Your task to perform on an android device: check data usage Image 0: 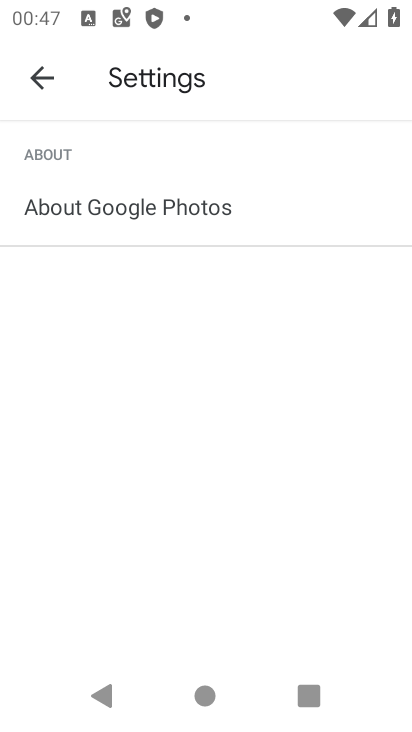
Step 0: press home button
Your task to perform on an android device: check data usage Image 1: 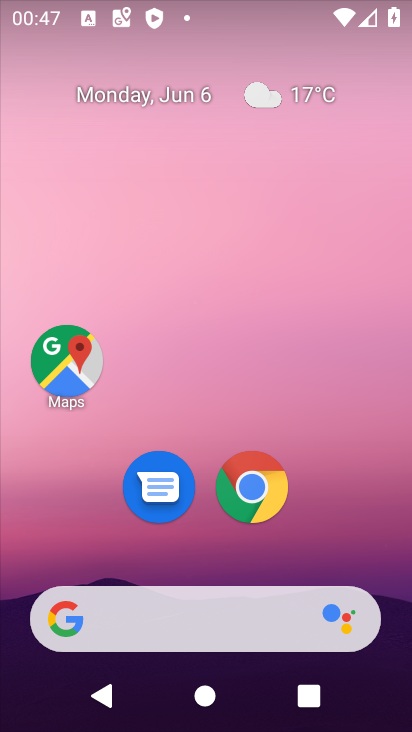
Step 1: drag from (401, 625) to (330, 5)
Your task to perform on an android device: check data usage Image 2: 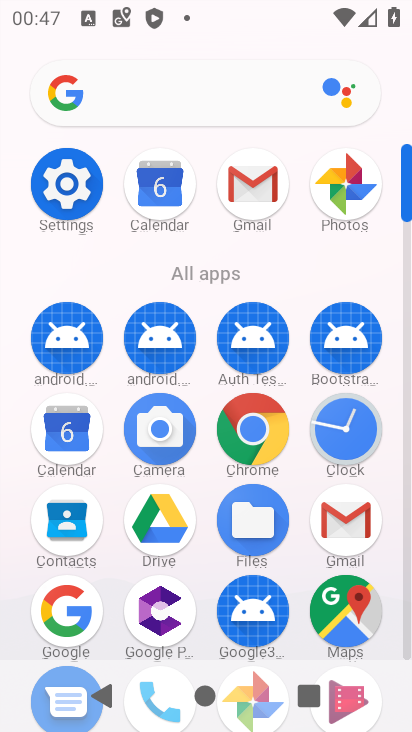
Step 2: click (406, 634)
Your task to perform on an android device: check data usage Image 3: 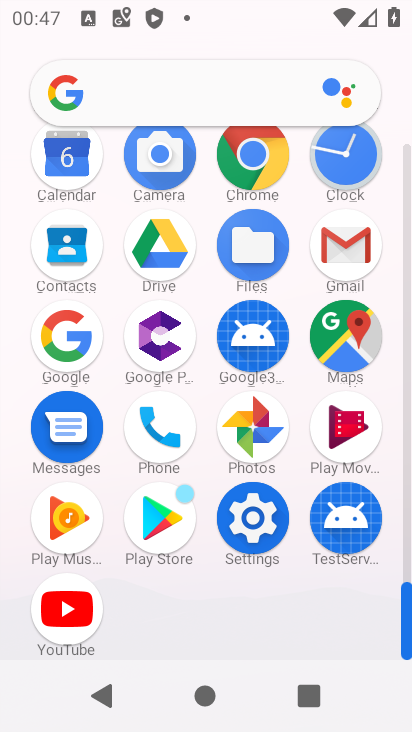
Step 3: click (252, 519)
Your task to perform on an android device: check data usage Image 4: 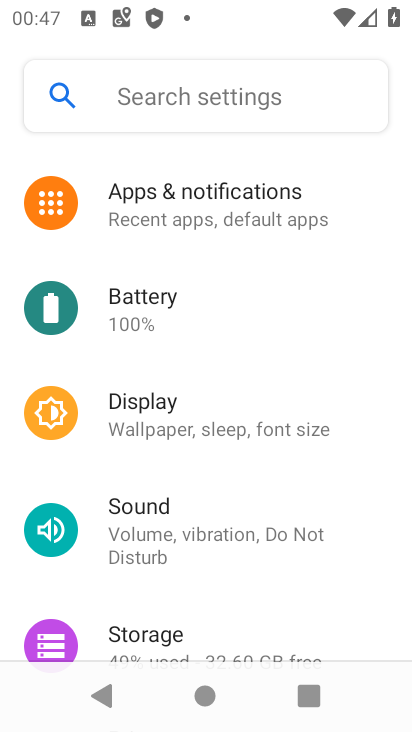
Step 4: drag from (365, 198) to (325, 522)
Your task to perform on an android device: check data usage Image 5: 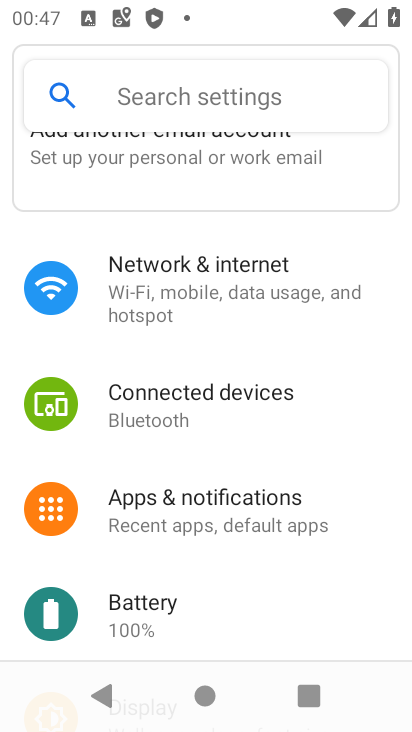
Step 5: click (159, 270)
Your task to perform on an android device: check data usage Image 6: 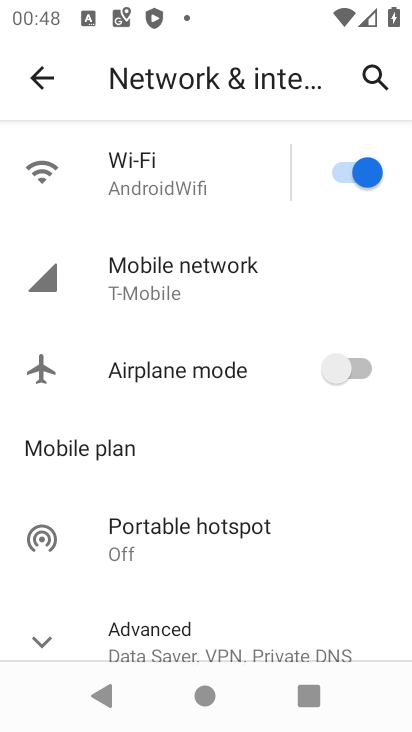
Step 6: click (153, 257)
Your task to perform on an android device: check data usage Image 7: 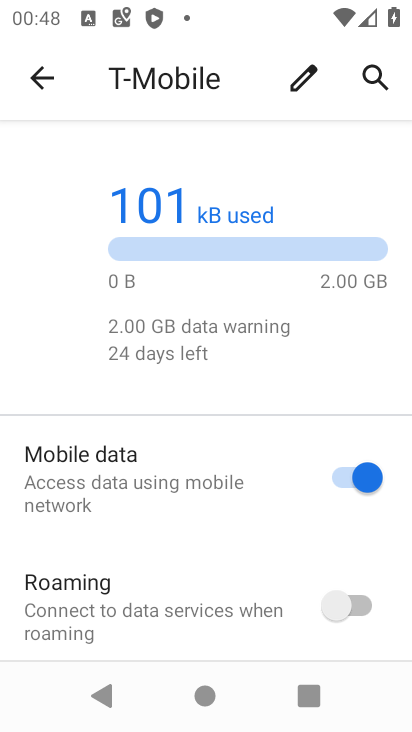
Step 7: task complete